Your task to perform on an android device: create a new album in the google photos Image 0: 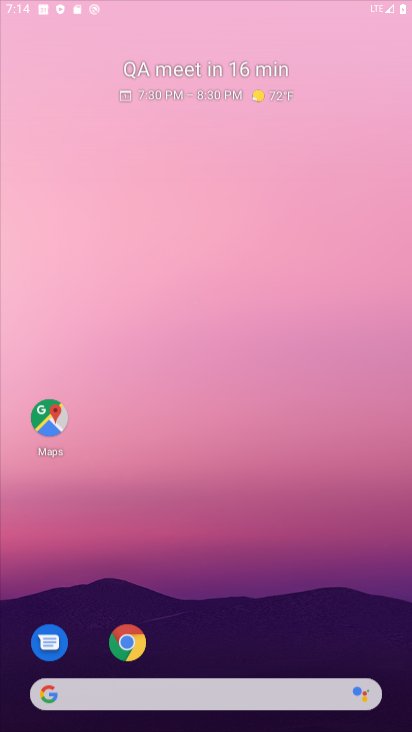
Step 0: press home button
Your task to perform on an android device: create a new album in the google photos Image 1: 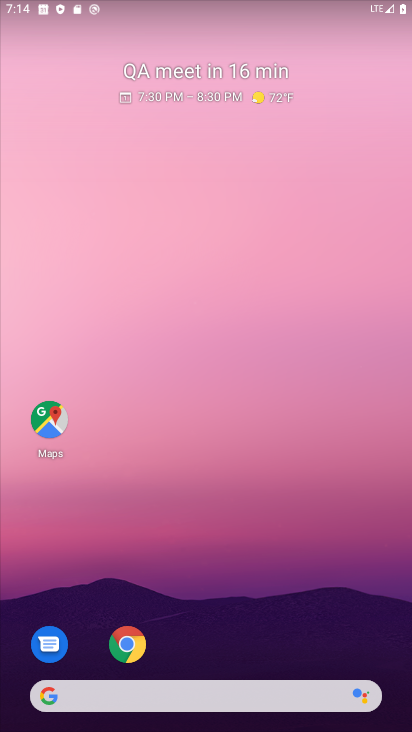
Step 1: drag from (180, 714) to (187, 201)
Your task to perform on an android device: create a new album in the google photos Image 2: 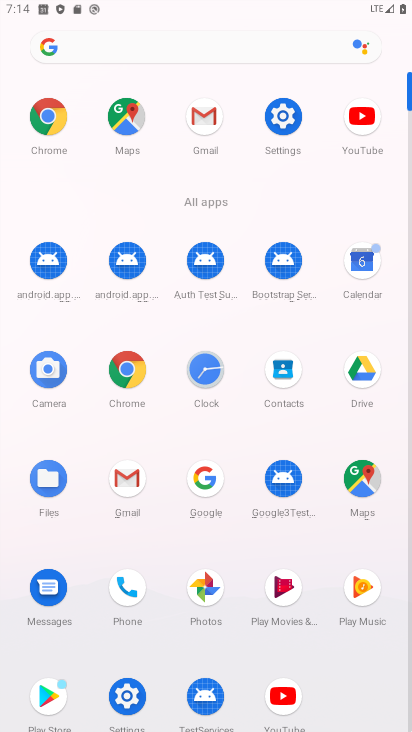
Step 2: click (210, 594)
Your task to perform on an android device: create a new album in the google photos Image 3: 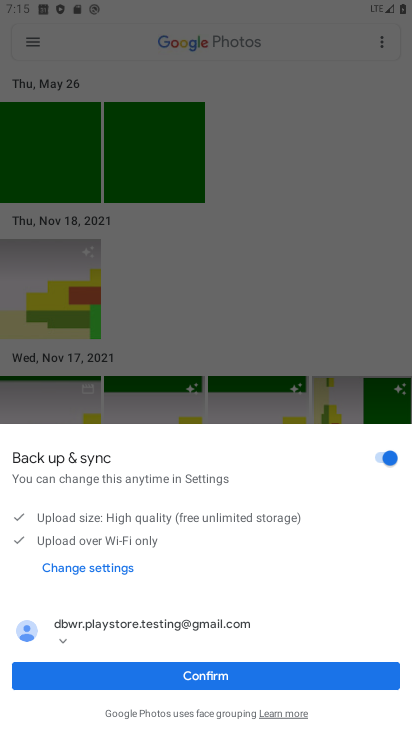
Step 3: click (203, 678)
Your task to perform on an android device: create a new album in the google photos Image 4: 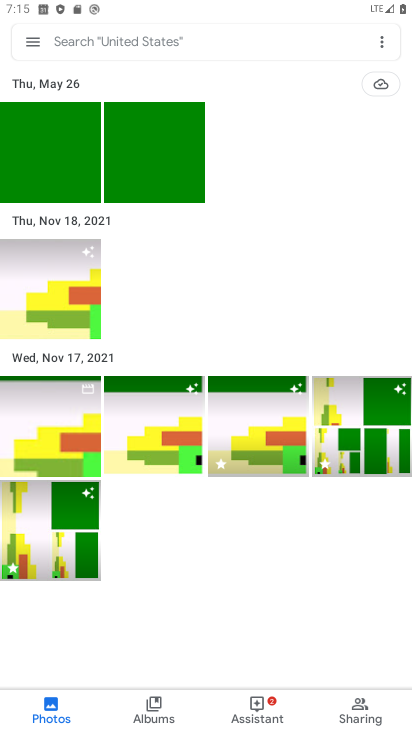
Step 4: click (163, 435)
Your task to perform on an android device: create a new album in the google photos Image 5: 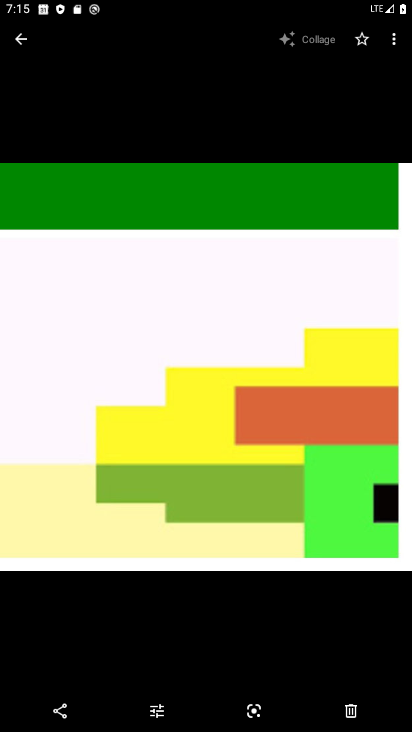
Step 5: click (392, 32)
Your task to perform on an android device: create a new album in the google photos Image 6: 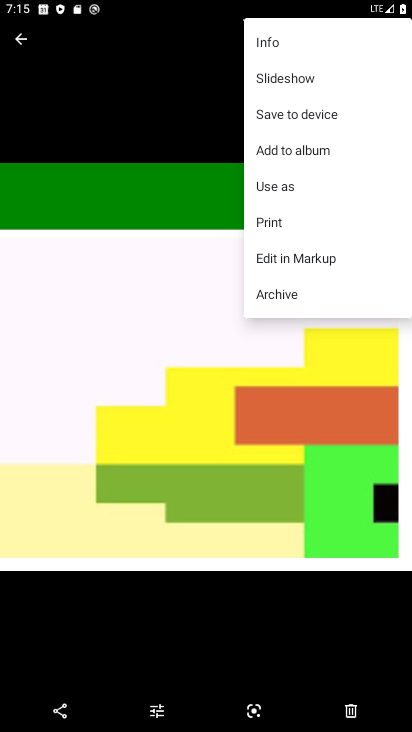
Step 6: click (289, 153)
Your task to perform on an android device: create a new album in the google photos Image 7: 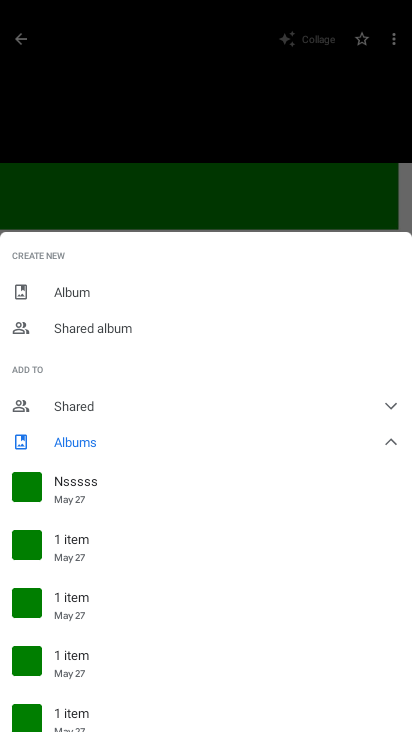
Step 7: click (38, 286)
Your task to perform on an android device: create a new album in the google photos Image 8: 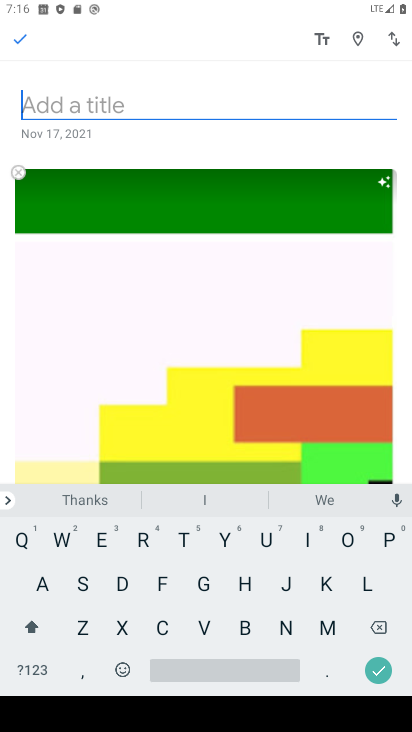
Step 8: click (210, 590)
Your task to perform on an android device: create a new album in the google photos Image 9: 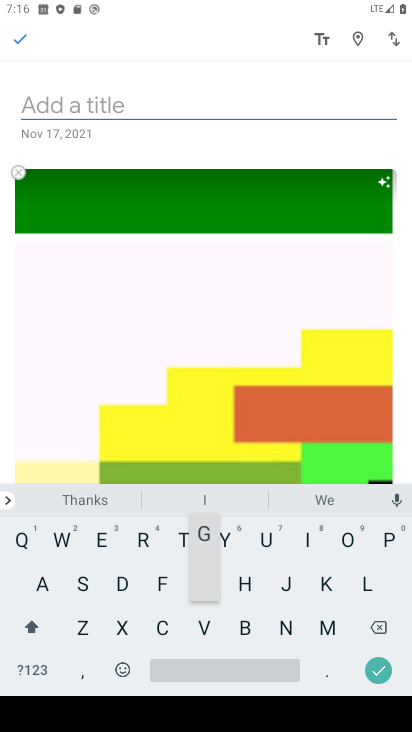
Step 9: click (148, 564)
Your task to perform on an android device: create a new album in the google photos Image 10: 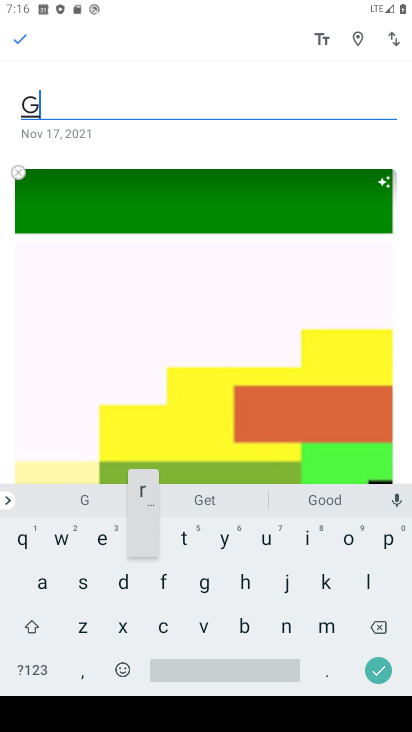
Step 10: click (137, 572)
Your task to perform on an android device: create a new album in the google photos Image 11: 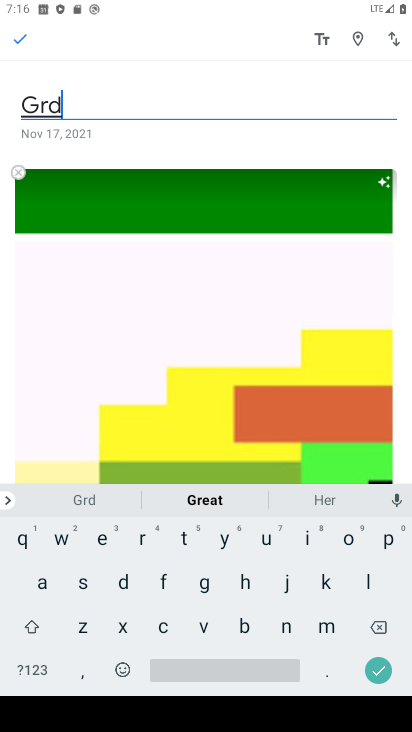
Step 11: click (17, 31)
Your task to perform on an android device: create a new album in the google photos Image 12: 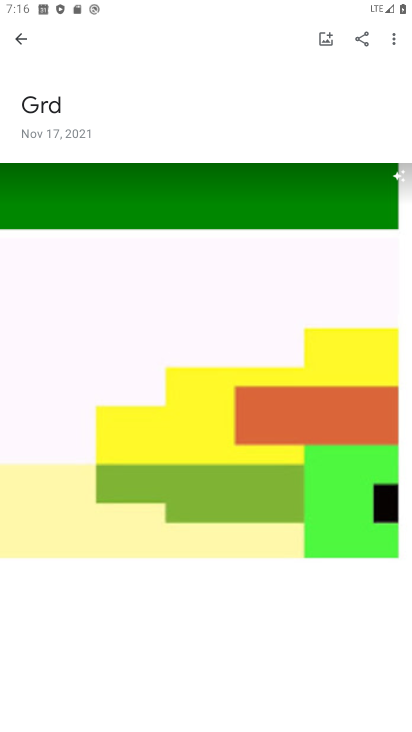
Step 12: task complete